Your task to perform on an android device: What's the weather? Image 0: 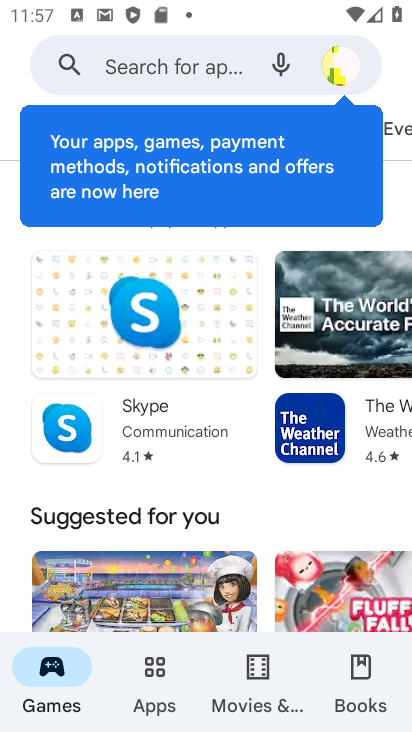
Step 0: press home button
Your task to perform on an android device: What's the weather? Image 1: 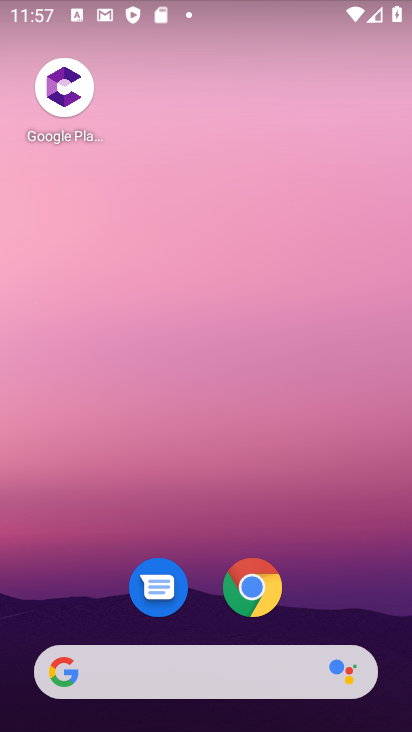
Step 1: click (231, 693)
Your task to perform on an android device: What's the weather? Image 2: 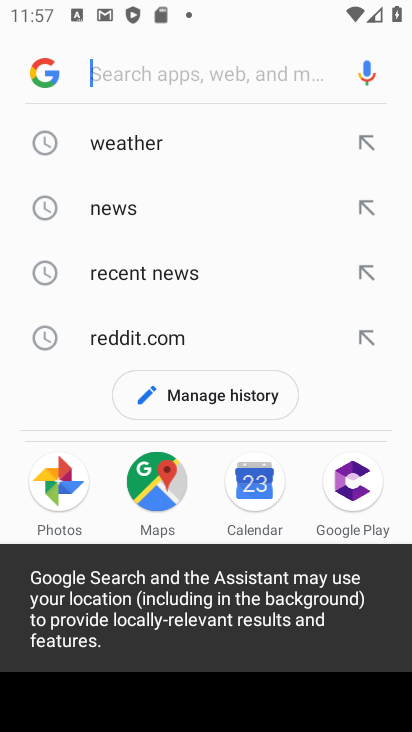
Step 2: click (164, 158)
Your task to perform on an android device: What's the weather? Image 3: 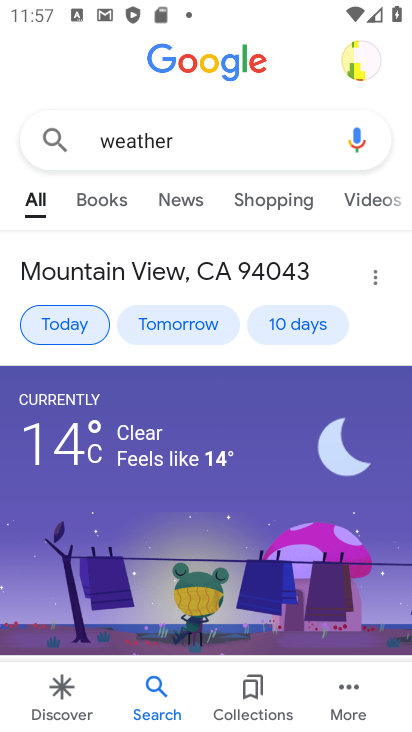
Step 3: task complete